Your task to perform on an android device: Play the last video I watched on Youtube Image 0: 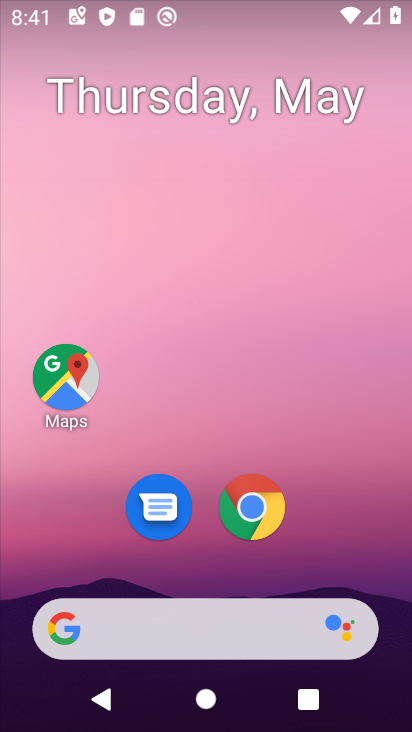
Step 0: drag from (365, 562) to (376, 161)
Your task to perform on an android device: Play the last video I watched on Youtube Image 1: 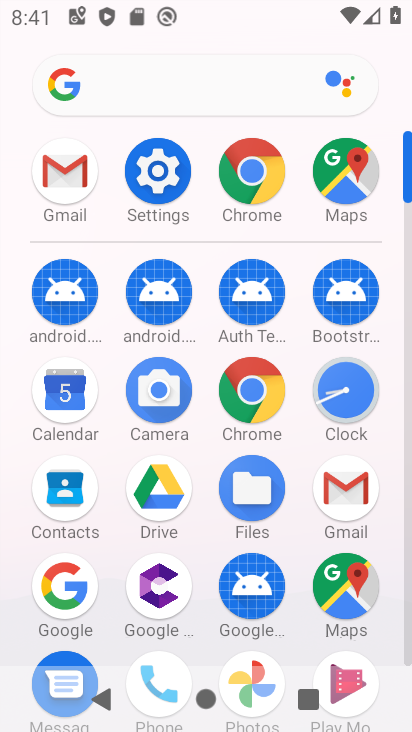
Step 1: drag from (384, 535) to (376, 194)
Your task to perform on an android device: Play the last video I watched on Youtube Image 2: 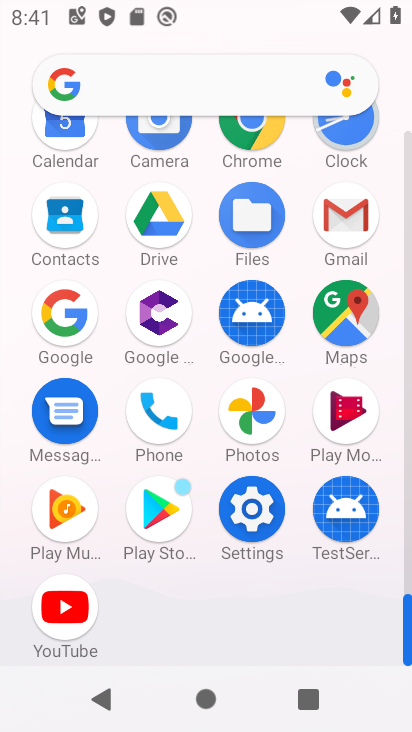
Step 2: click (72, 611)
Your task to perform on an android device: Play the last video I watched on Youtube Image 3: 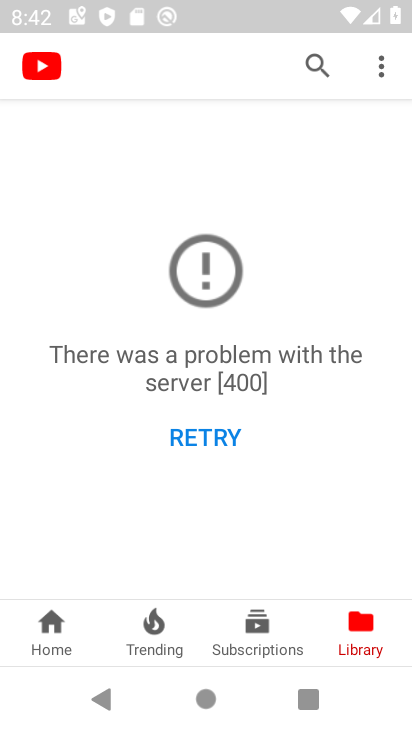
Step 3: task complete